Your task to perform on an android device: see tabs open on other devices in the chrome app Image 0: 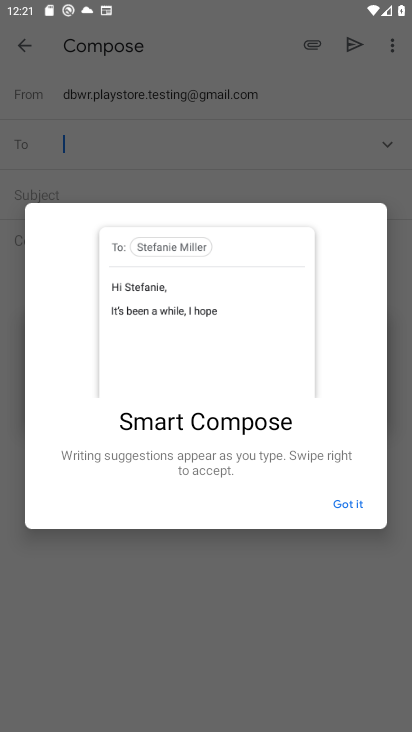
Step 0: press home button
Your task to perform on an android device: see tabs open on other devices in the chrome app Image 1: 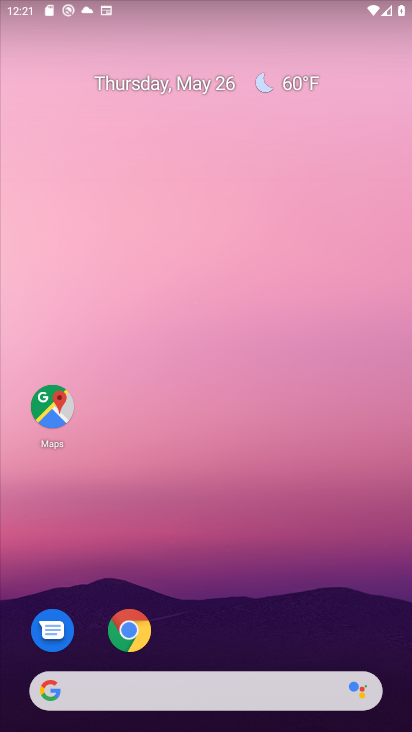
Step 1: drag from (318, 618) to (296, 210)
Your task to perform on an android device: see tabs open on other devices in the chrome app Image 2: 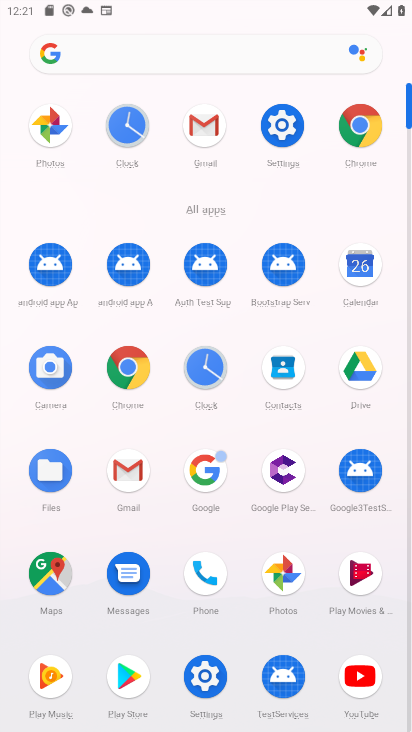
Step 2: click (363, 116)
Your task to perform on an android device: see tabs open on other devices in the chrome app Image 3: 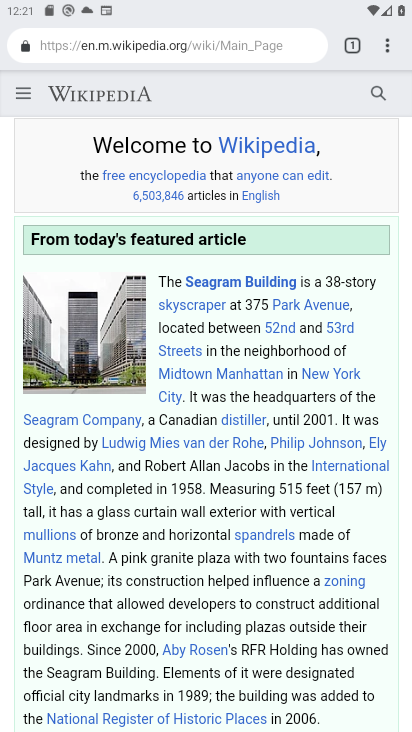
Step 3: task complete